Your task to perform on an android device: manage bookmarks in the chrome app Image 0: 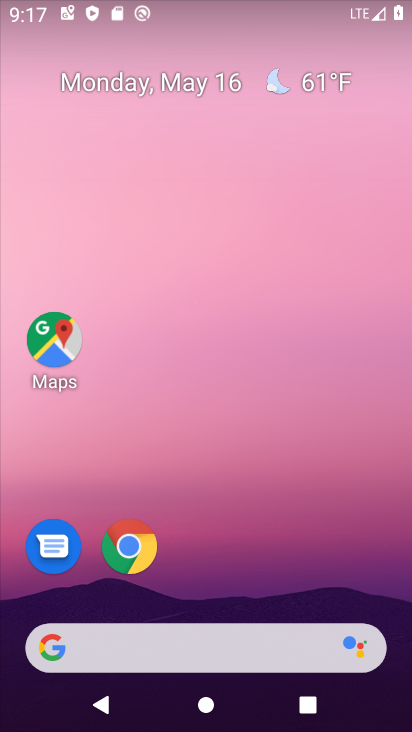
Step 0: click (128, 551)
Your task to perform on an android device: manage bookmarks in the chrome app Image 1: 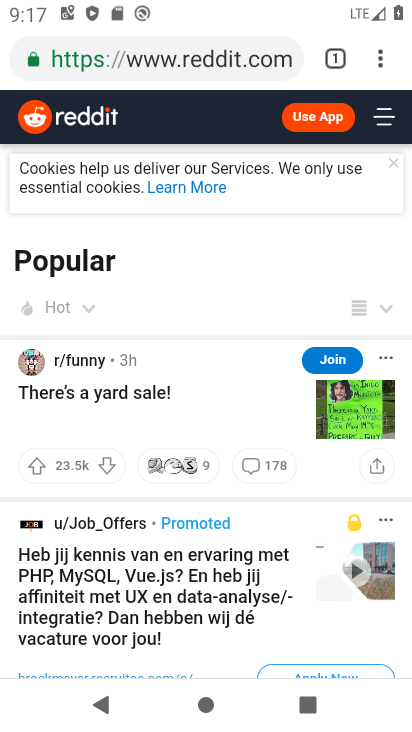
Step 1: click (385, 65)
Your task to perform on an android device: manage bookmarks in the chrome app Image 2: 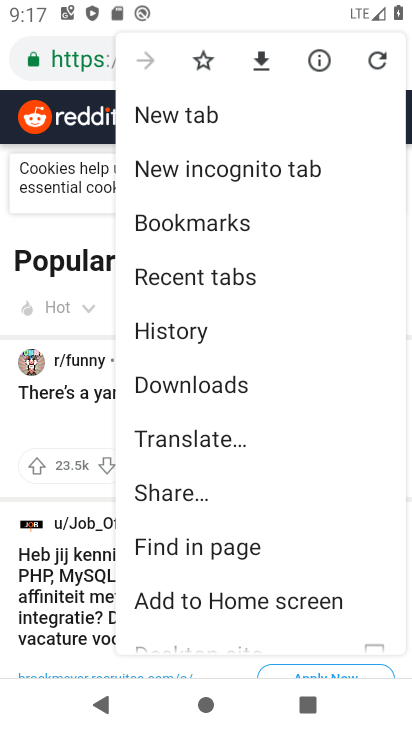
Step 2: click (244, 223)
Your task to perform on an android device: manage bookmarks in the chrome app Image 3: 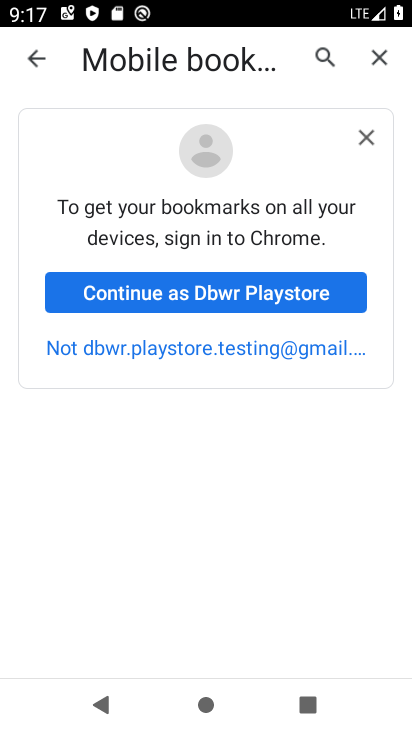
Step 3: click (370, 127)
Your task to perform on an android device: manage bookmarks in the chrome app Image 4: 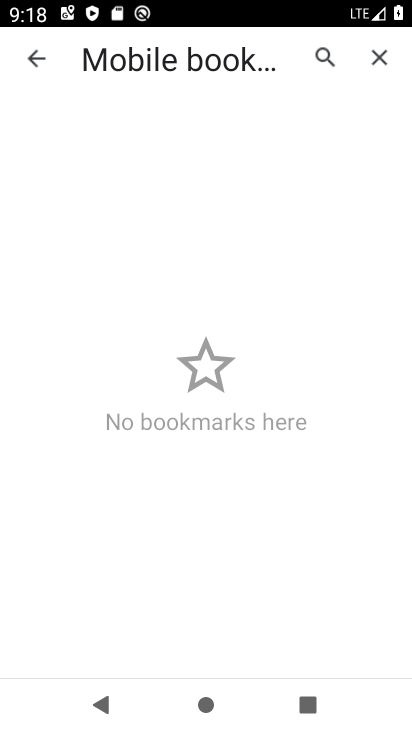
Step 4: click (39, 50)
Your task to perform on an android device: manage bookmarks in the chrome app Image 5: 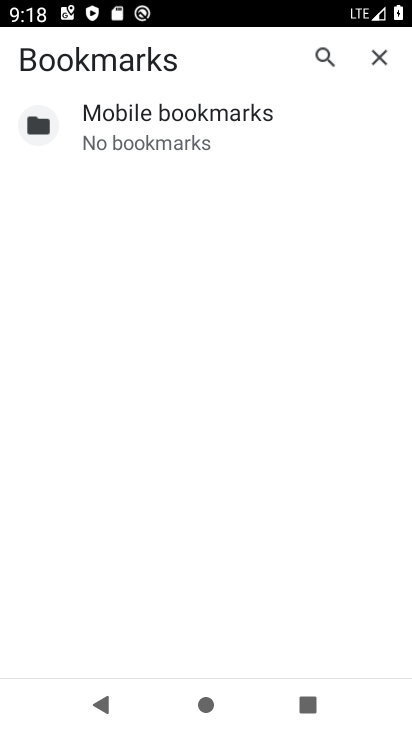
Step 5: click (285, 117)
Your task to perform on an android device: manage bookmarks in the chrome app Image 6: 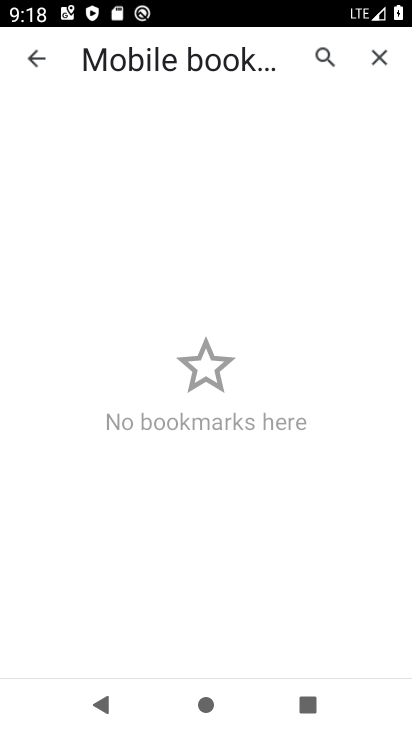
Step 6: click (380, 52)
Your task to perform on an android device: manage bookmarks in the chrome app Image 7: 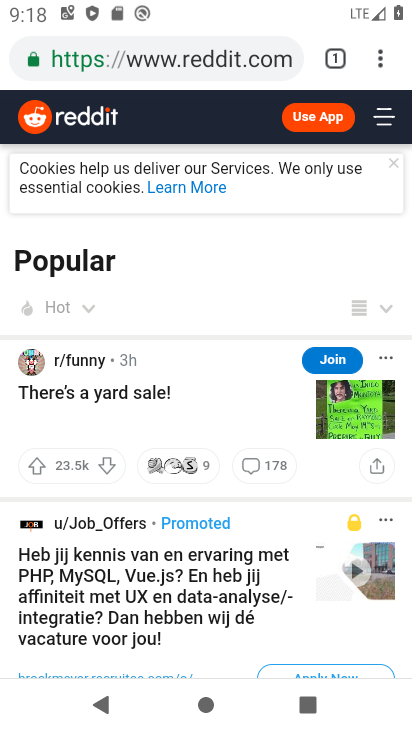
Step 7: click (389, 59)
Your task to perform on an android device: manage bookmarks in the chrome app Image 8: 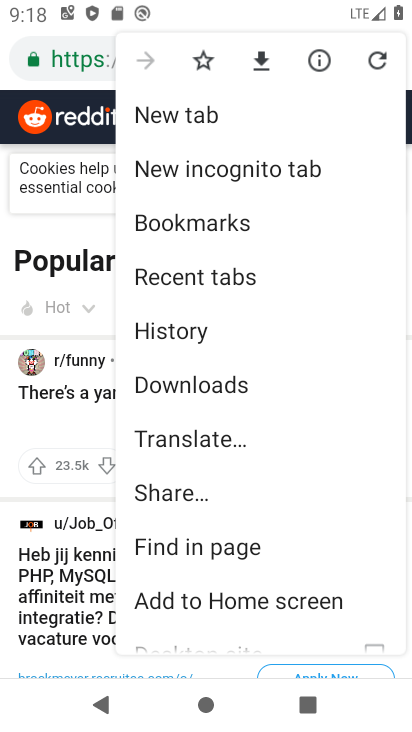
Step 8: click (183, 236)
Your task to perform on an android device: manage bookmarks in the chrome app Image 9: 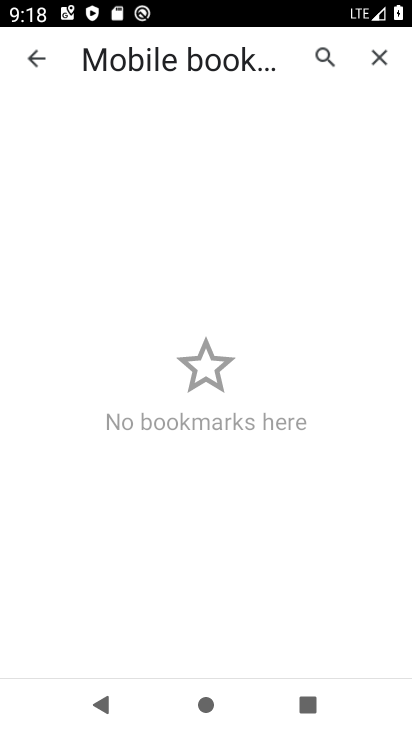
Step 9: click (183, 236)
Your task to perform on an android device: manage bookmarks in the chrome app Image 10: 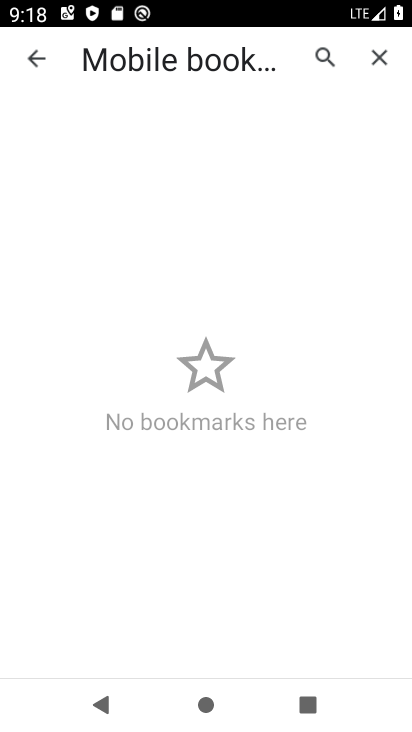
Step 10: click (183, 236)
Your task to perform on an android device: manage bookmarks in the chrome app Image 11: 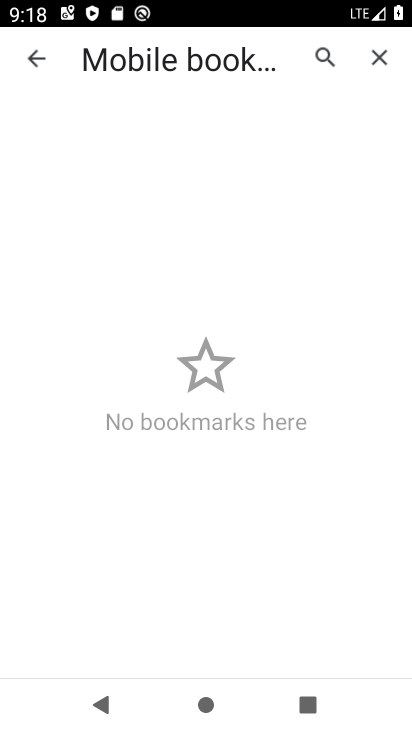
Step 11: click (29, 59)
Your task to perform on an android device: manage bookmarks in the chrome app Image 12: 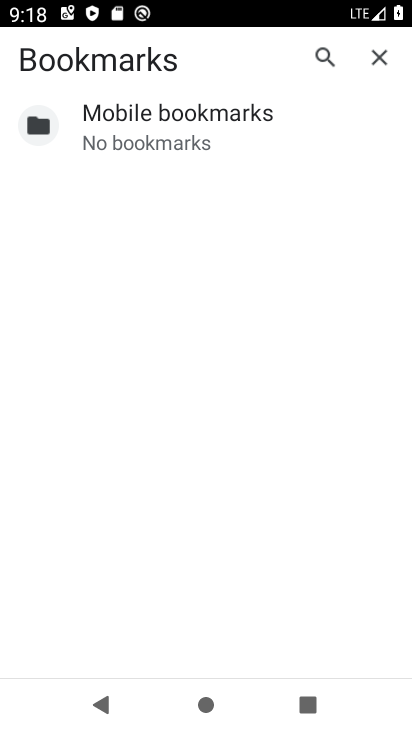
Step 12: click (131, 132)
Your task to perform on an android device: manage bookmarks in the chrome app Image 13: 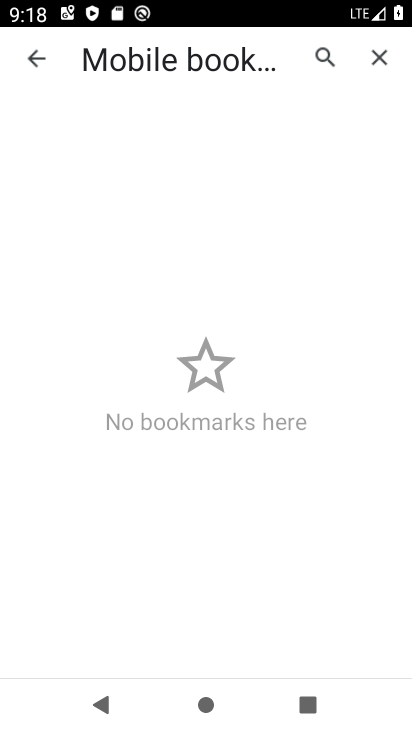
Step 13: task complete